Your task to perform on an android device: Search for seafood restaurants on Google Maps Image 0: 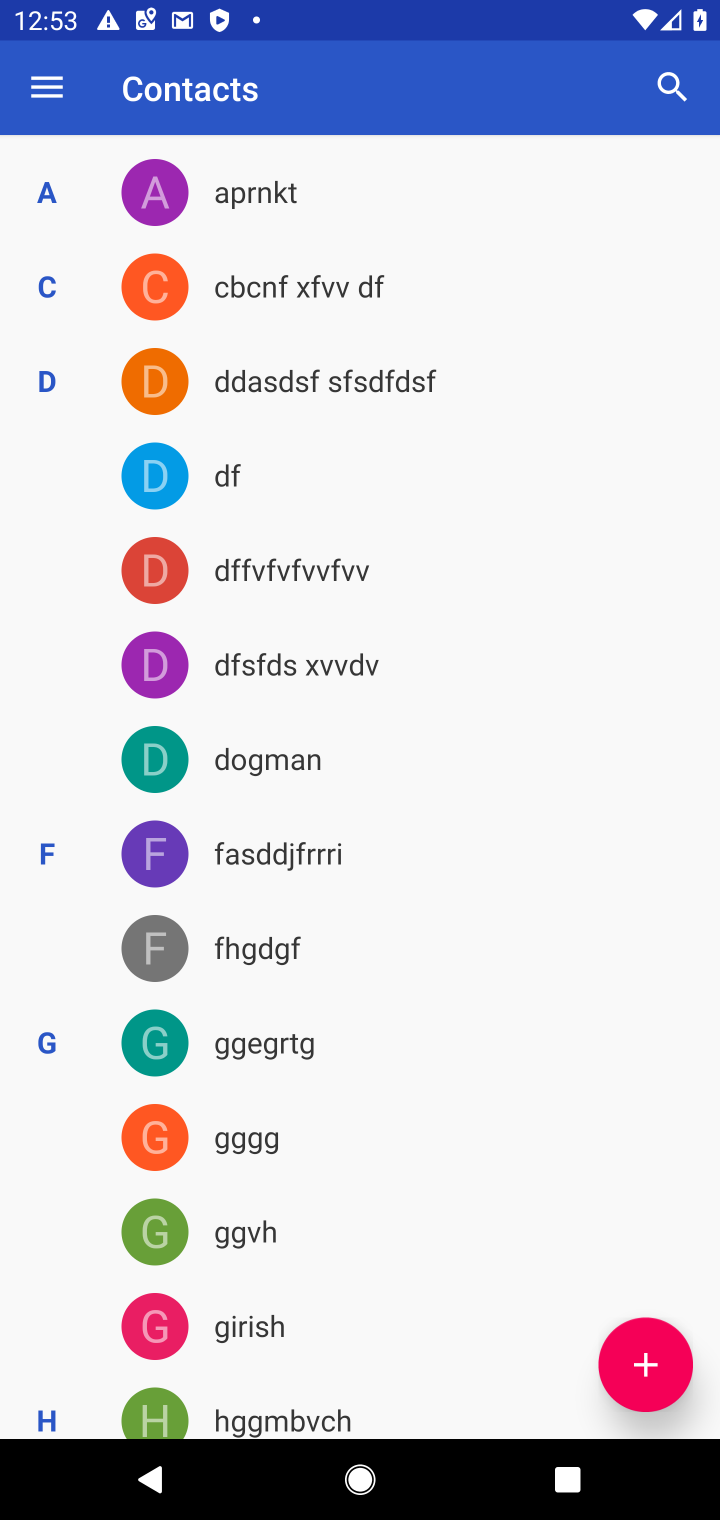
Step 0: press home button
Your task to perform on an android device: Search for seafood restaurants on Google Maps Image 1: 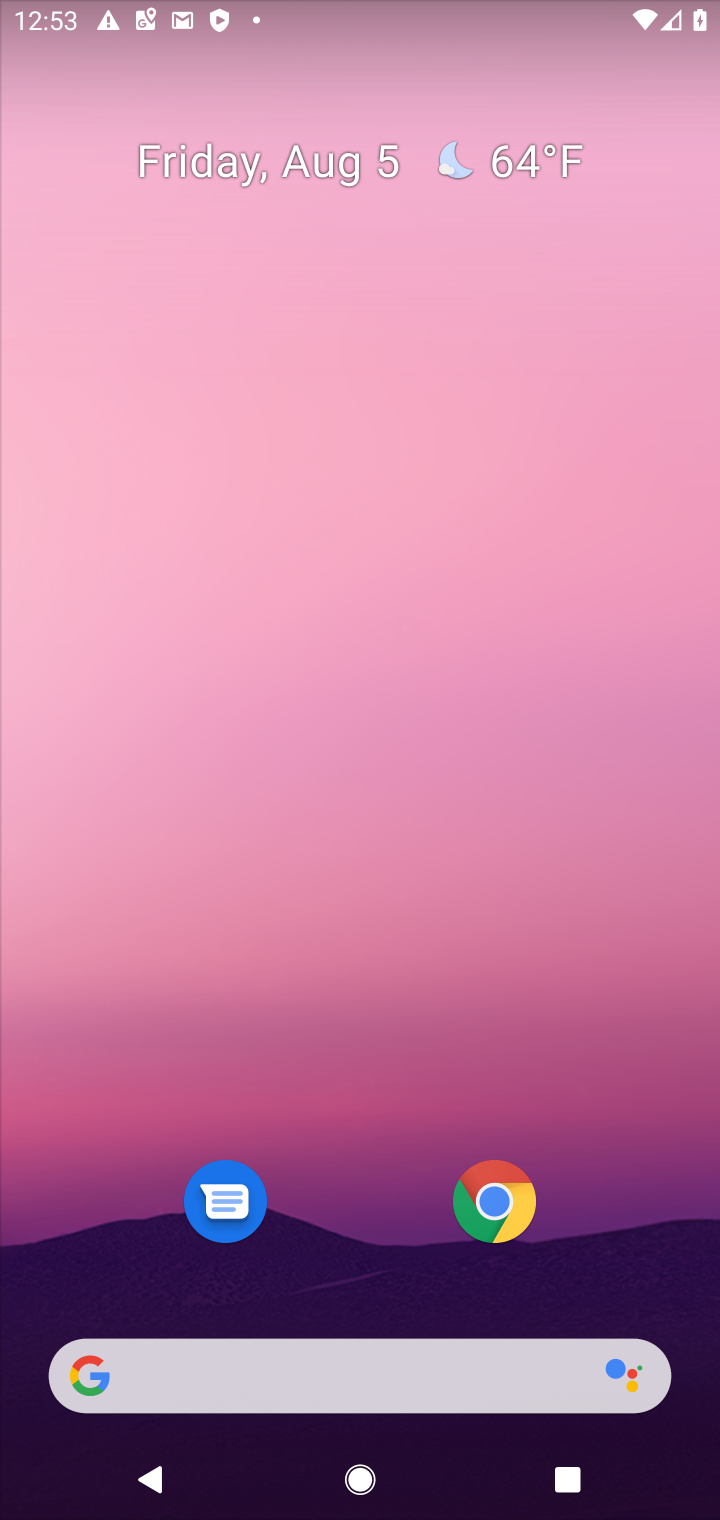
Step 1: drag from (645, 1241) to (555, 394)
Your task to perform on an android device: Search for seafood restaurants on Google Maps Image 2: 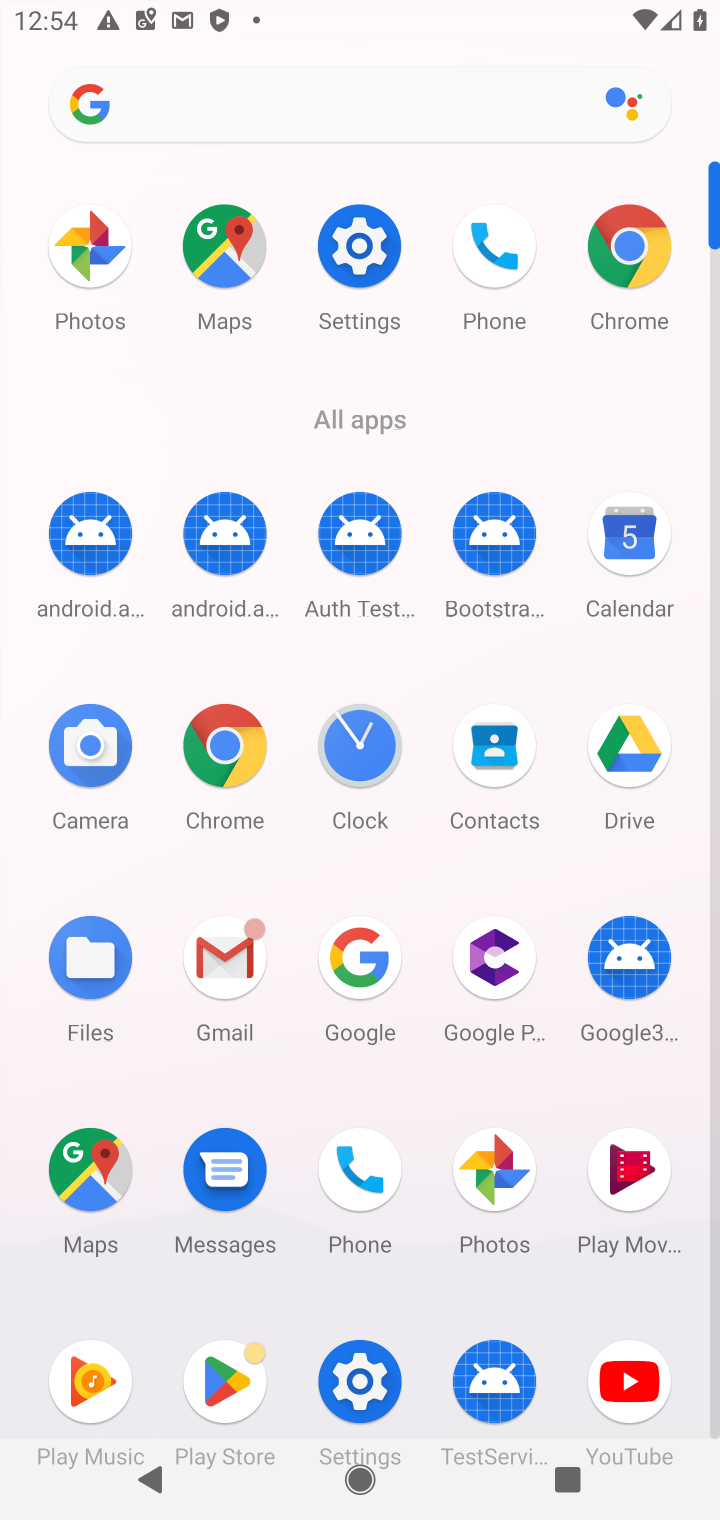
Step 2: click (92, 1182)
Your task to perform on an android device: Search for seafood restaurants on Google Maps Image 3: 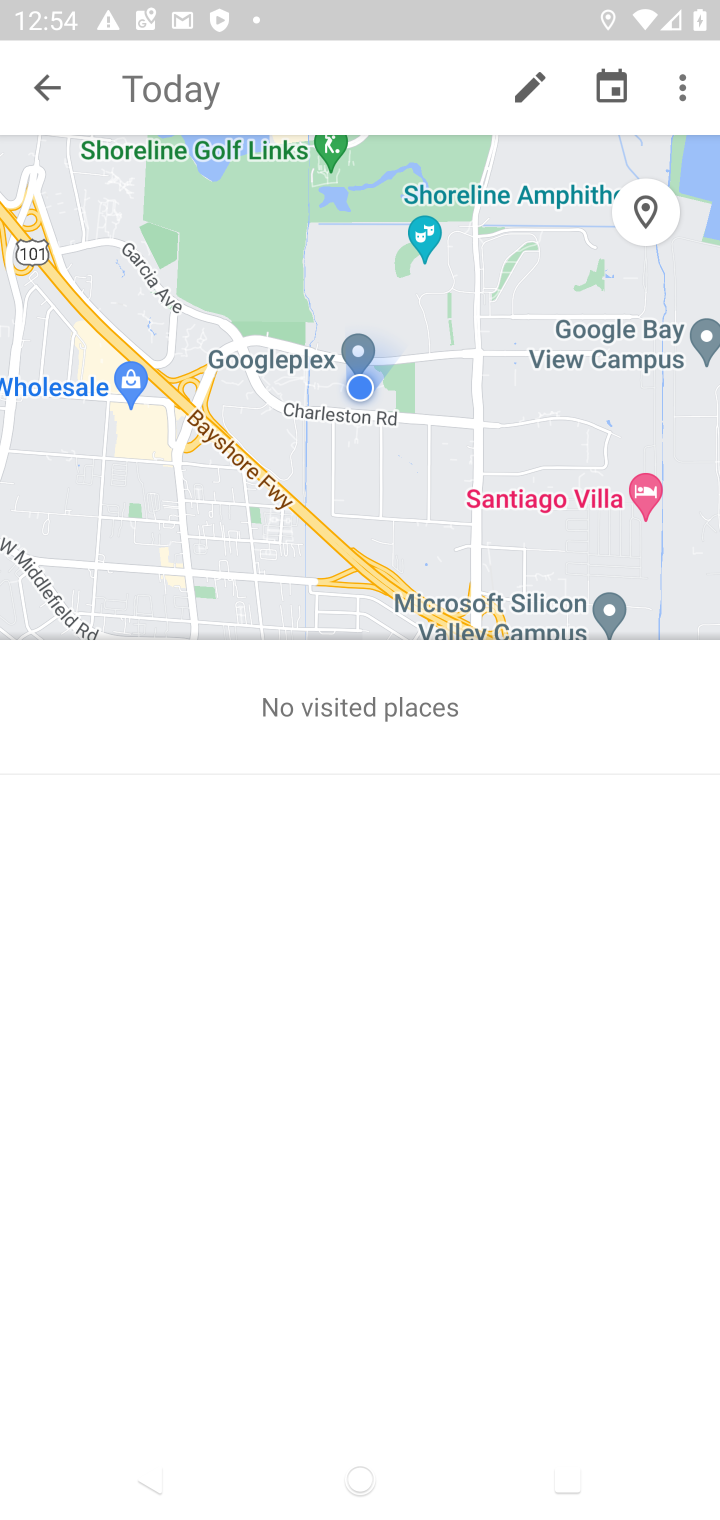
Step 3: click (44, 101)
Your task to perform on an android device: Search for seafood restaurants on Google Maps Image 4: 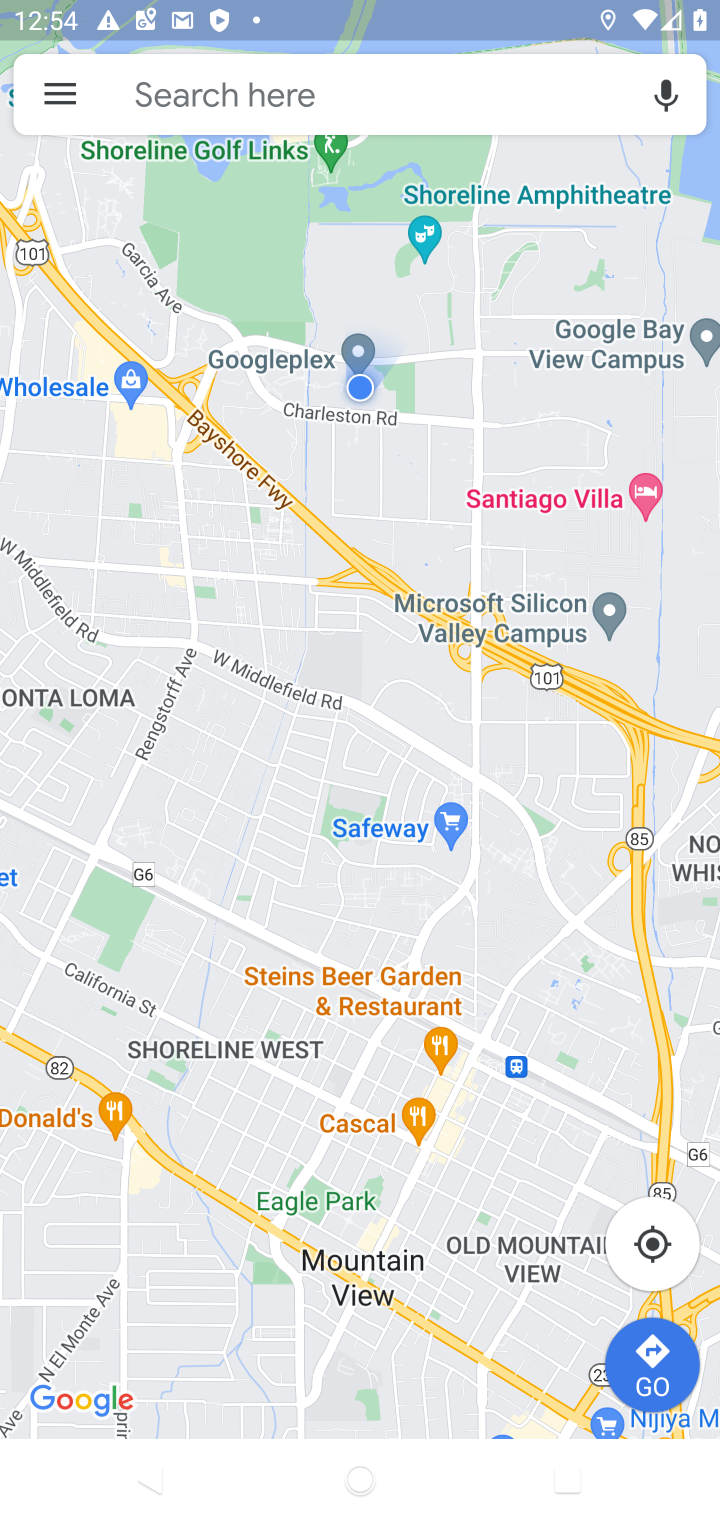
Step 4: click (326, 85)
Your task to perform on an android device: Search for seafood restaurants on Google Maps Image 5: 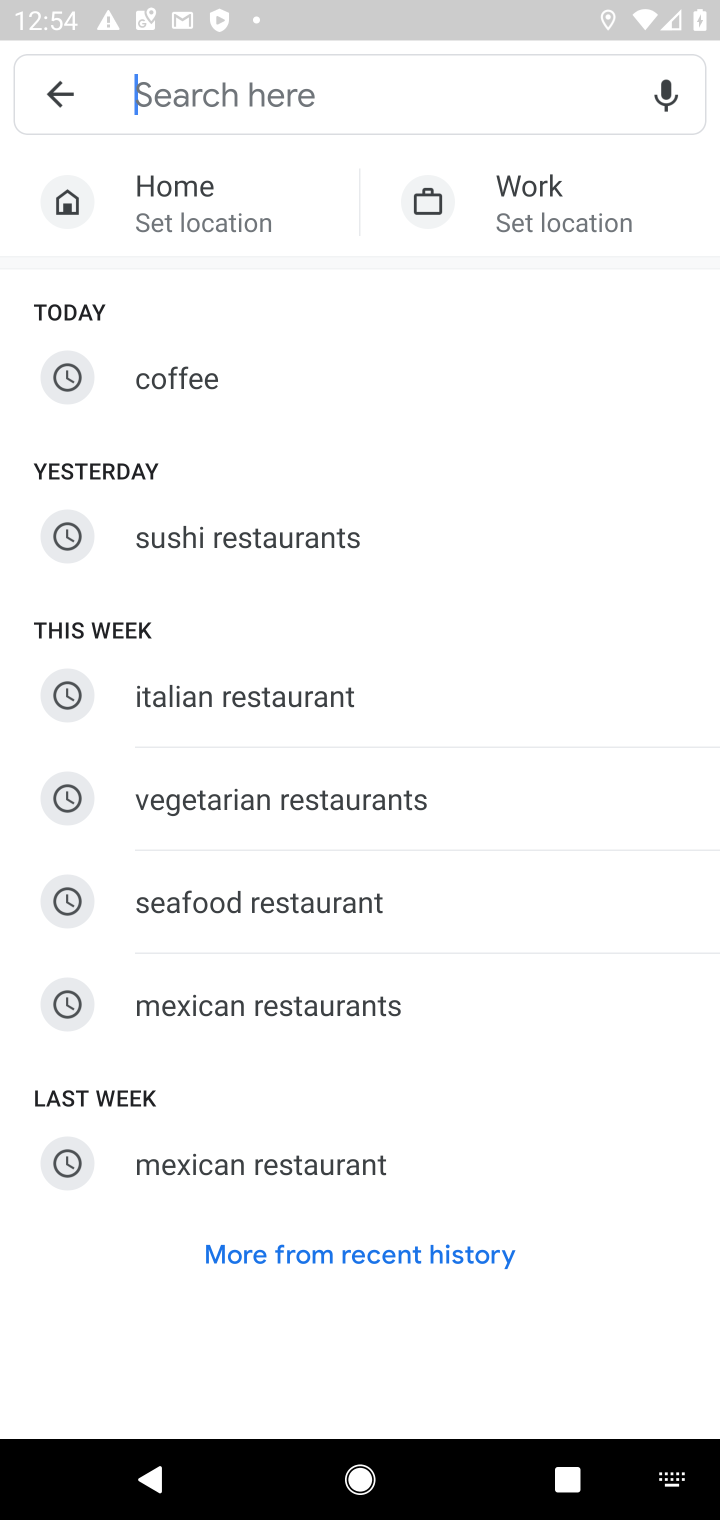
Step 5: click (253, 902)
Your task to perform on an android device: Search for seafood restaurants on Google Maps Image 6: 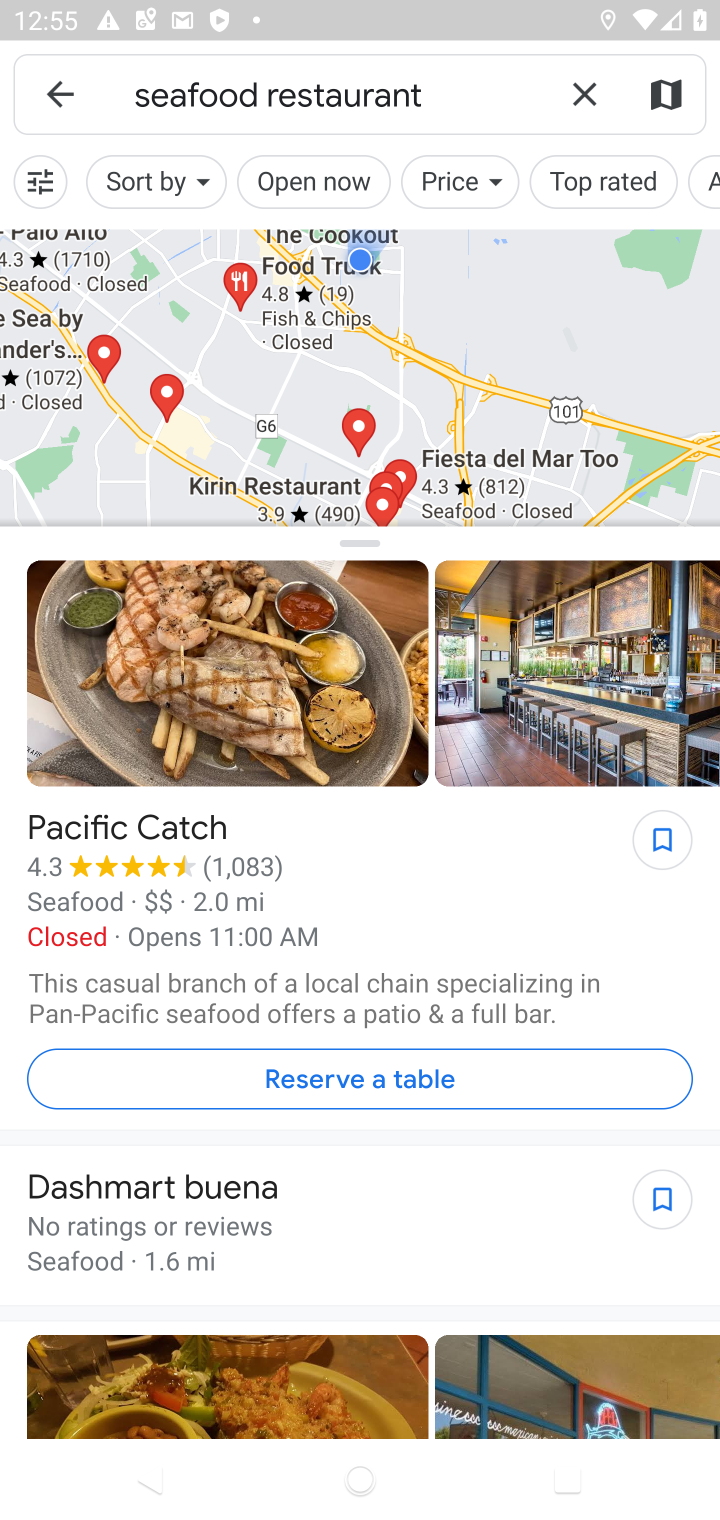
Step 6: task complete